Your task to perform on an android device: Open Chrome and go to the settings page Image 0: 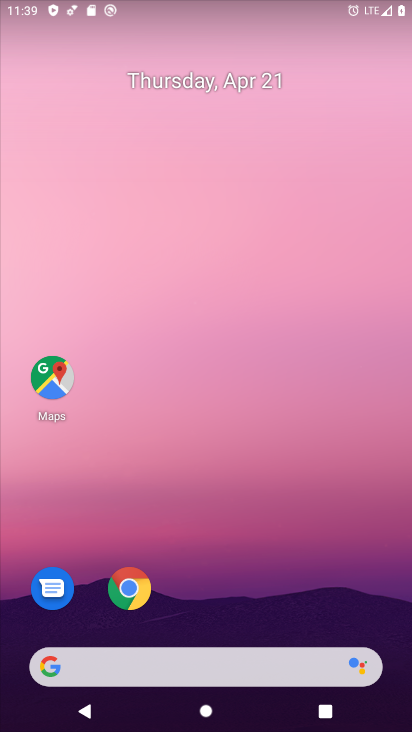
Step 0: drag from (296, 683) to (302, 116)
Your task to perform on an android device: Open Chrome and go to the settings page Image 1: 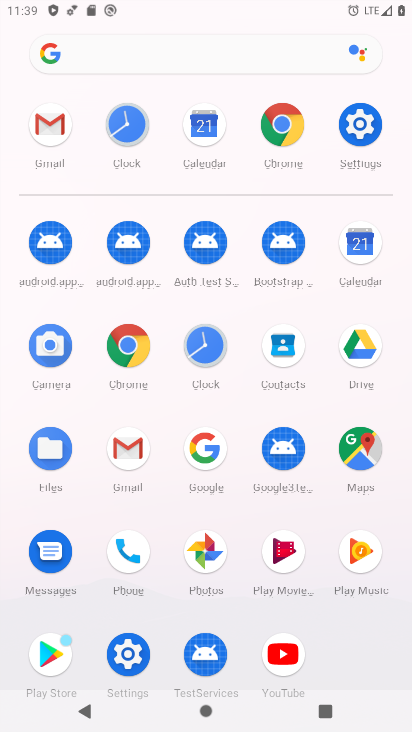
Step 1: click (358, 131)
Your task to perform on an android device: Open Chrome and go to the settings page Image 2: 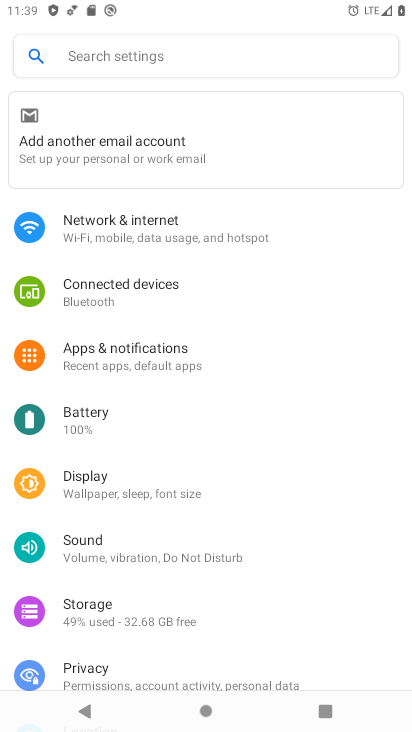
Step 2: press home button
Your task to perform on an android device: Open Chrome and go to the settings page Image 3: 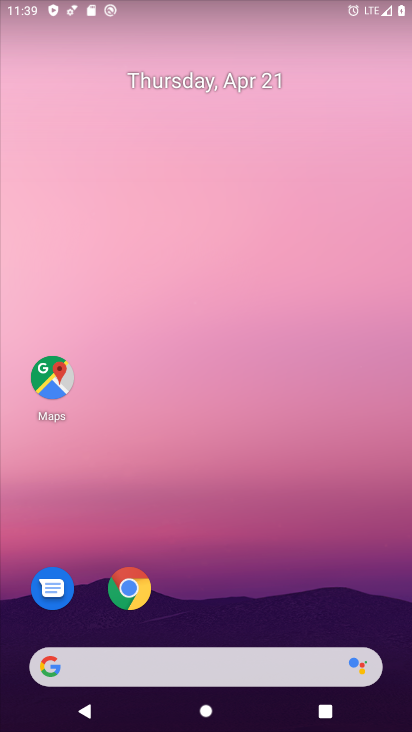
Step 3: drag from (245, 690) to (317, 171)
Your task to perform on an android device: Open Chrome and go to the settings page Image 4: 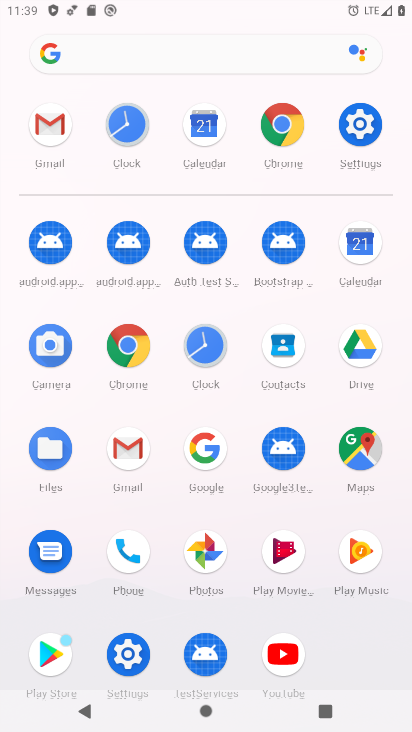
Step 4: click (276, 125)
Your task to perform on an android device: Open Chrome and go to the settings page Image 5: 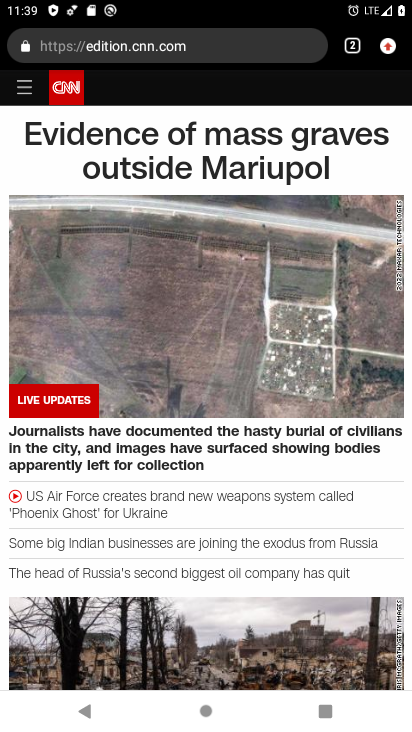
Step 5: click (391, 50)
Your task to perform on an android device: Open Chrome and go to the settings page Image 6: 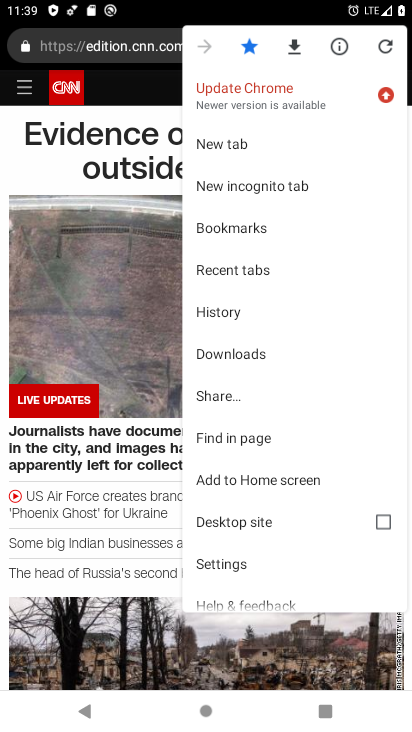
Step 6: click (240, 567)
Your task to perform on an android device: Open Chrome and go to the settings page Image 7: 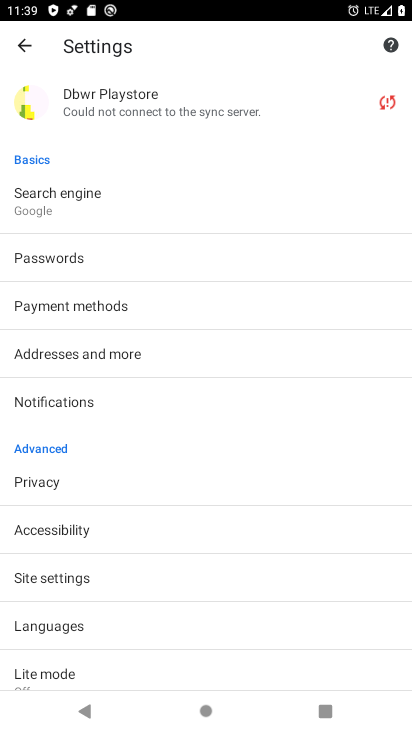
Step 7: task complete